Your task to perform on an android device: open a new tab in the chrome app Image 0: 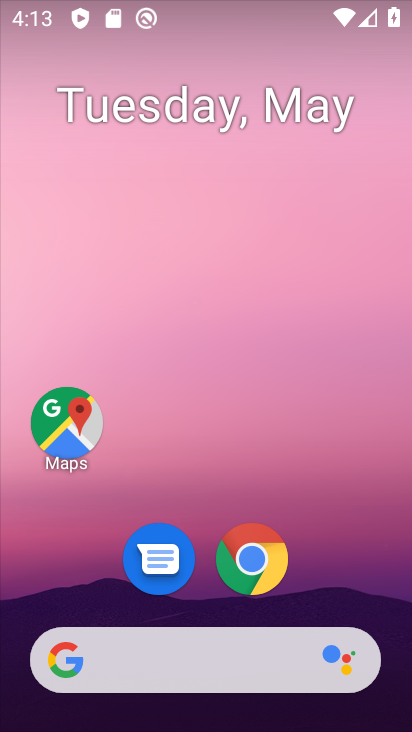
Step 0: drag from (330, 586) to (308, 392)
Your task to perform on an android device: open a new tab in the chrome app Image 1: 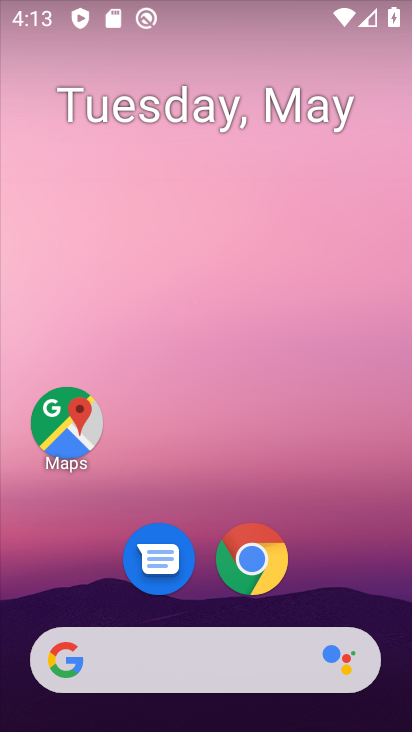
Step 1: click (246, 578)
Your task to perform on an android device: open a new tab in the chrome app Image 2: 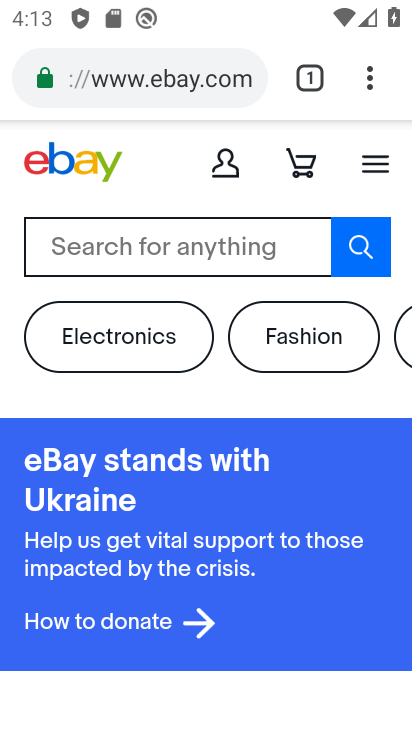
Step 2: click (378, 93)
Your task to perform on an android device: open a new tab in the chrome app Image 3: 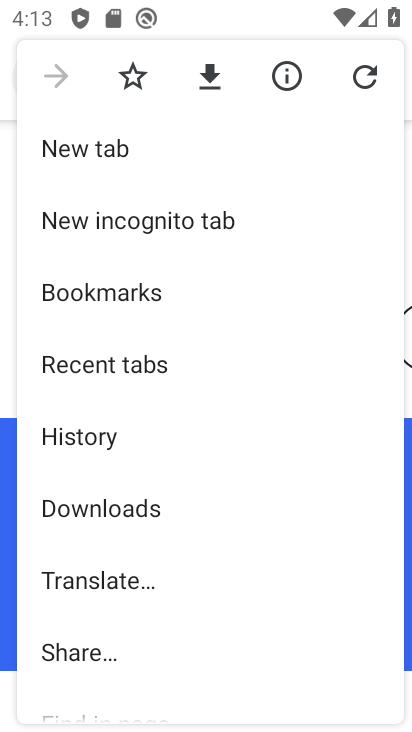
Step 3: click (148, 148)
Your task to perform on an android device: open a new tab in the chrome app Image 4: 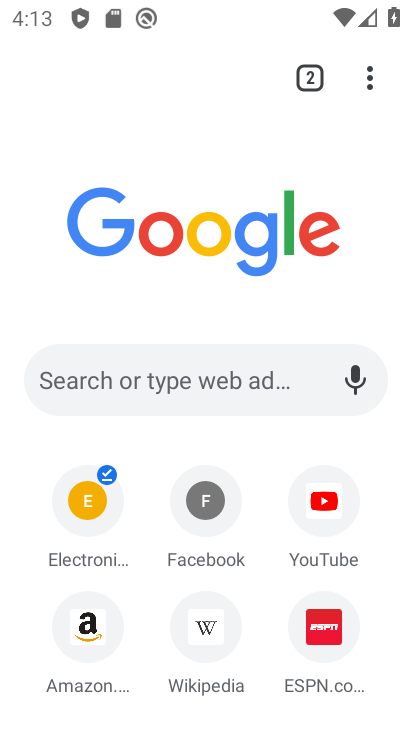
Step 4: task complete